Your task to perform on an android device: Search for Italian restaurants on Maps Image 0: 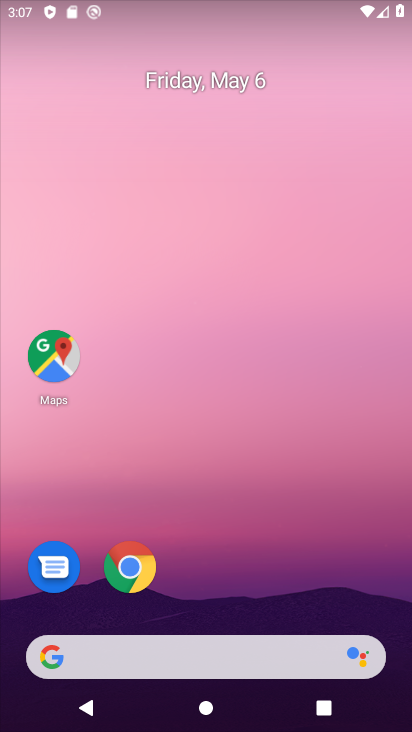
Step 0: click (58, 350)
Your task to perform on an android device: Search for Italian restaurants on Maps Image 1: 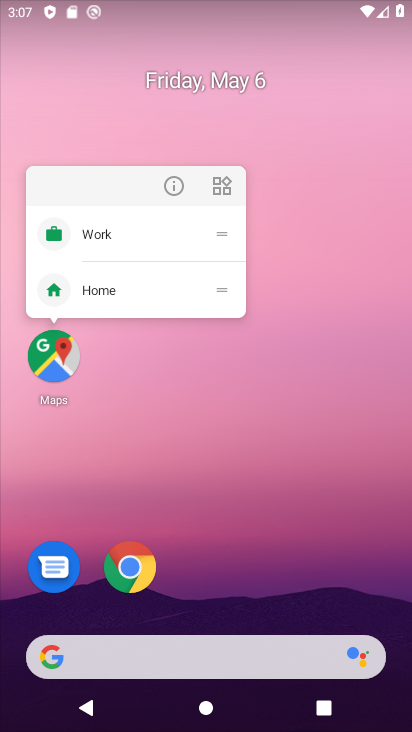
Step 1: click (168, 186)
Your task to perform on an android device: Search for Italian restaurants on Maps Image 2: 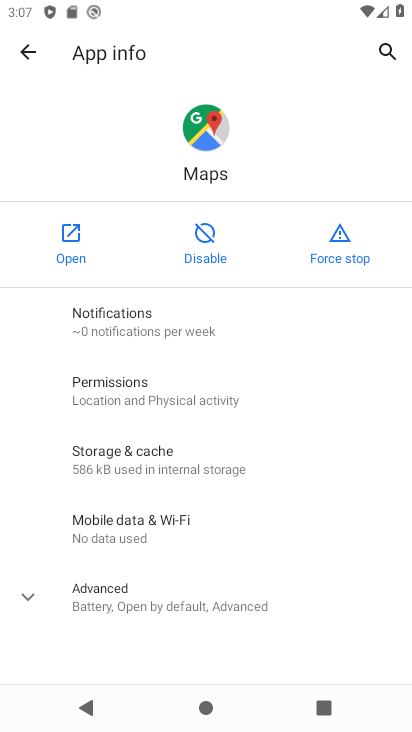
Step 2: click (72, 247)
Your task to perform on an android device: Search for Italian restaurants on Maps Image 3: 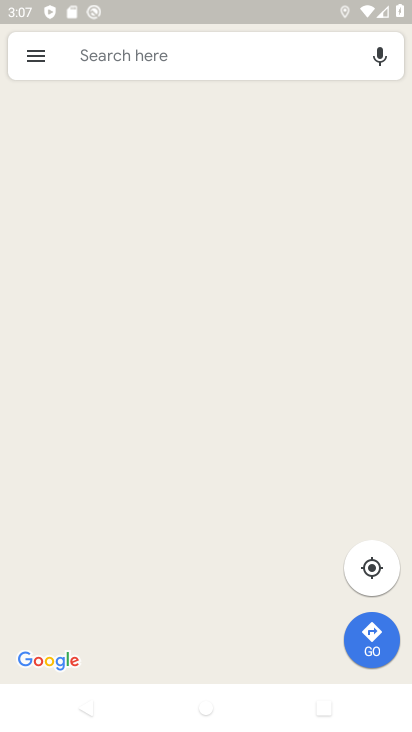
Step 3: click (123, 67)
Your task to perform on an android device: Search for Italian restaurants on Maps Image 4: 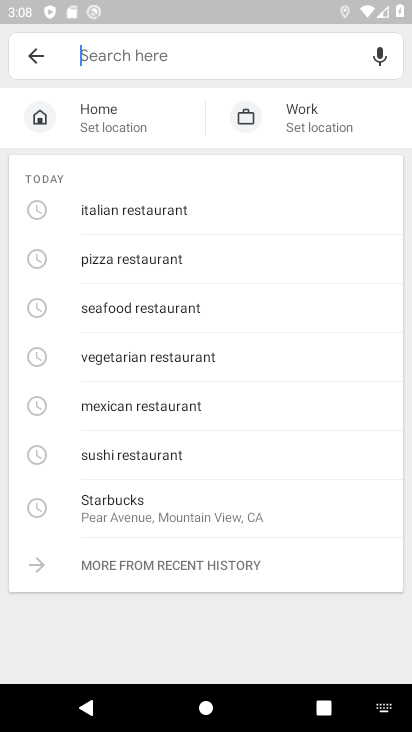
Step 4: type "italian restaurants"
Your task to perform on an android device: Search for Italian restaurants on Maps Image 5: 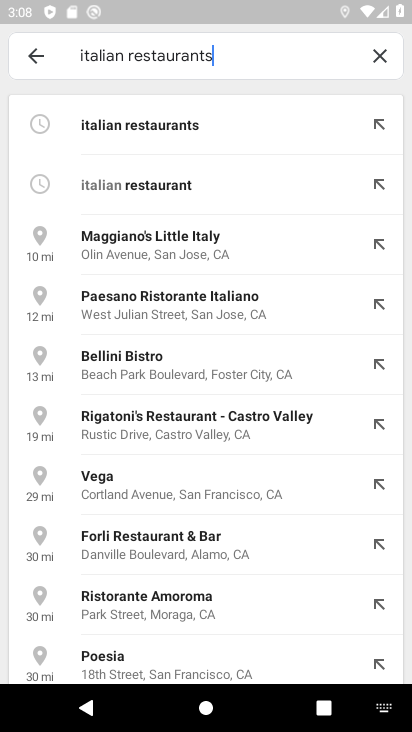
Step 5: click (146, 148)
Your task to perform on an android device: Search for Italian restaurants on Maps Image 6: 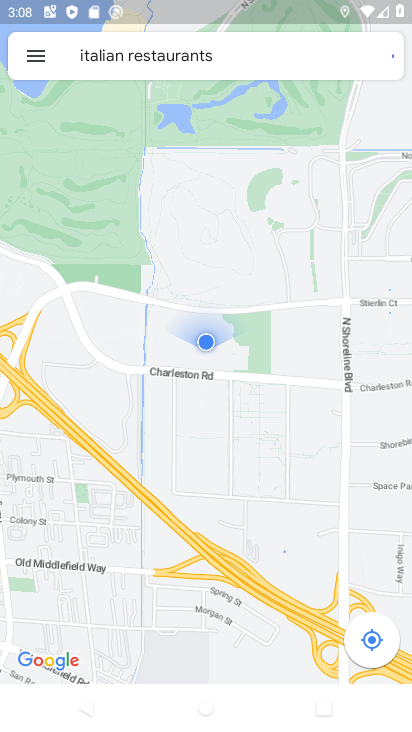
Step 6: task complete